Your task to perform on an android device: Open accessibility settings Image 0: 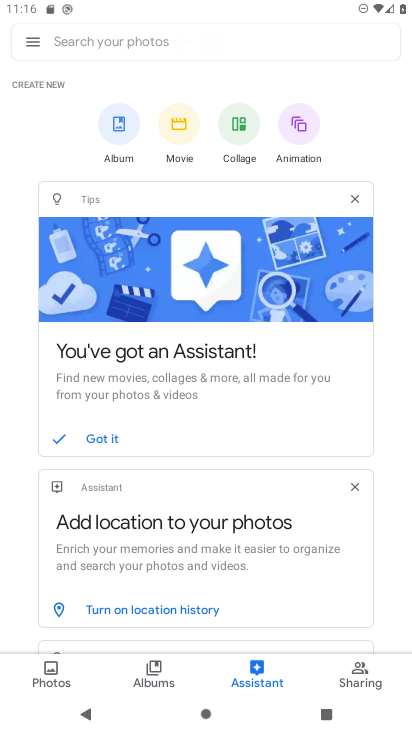
Step 0: press home button
Your task to perform on an android device: Open accessibility settings Image 1: 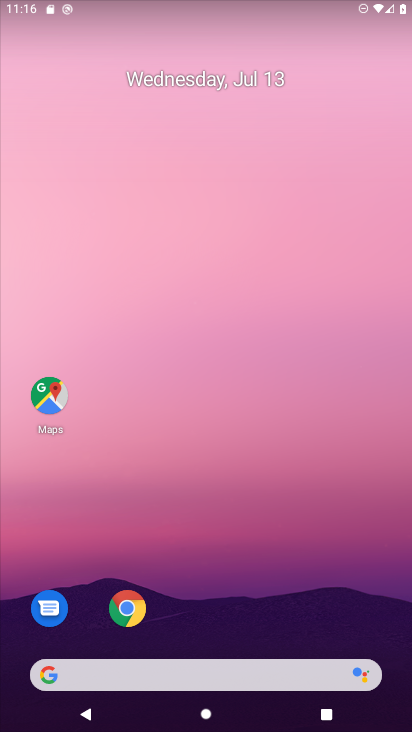
Step 1: drag from (285, 578) to (362, 30)
Your task to perform on an android device: Open accessibility settings Image 2: 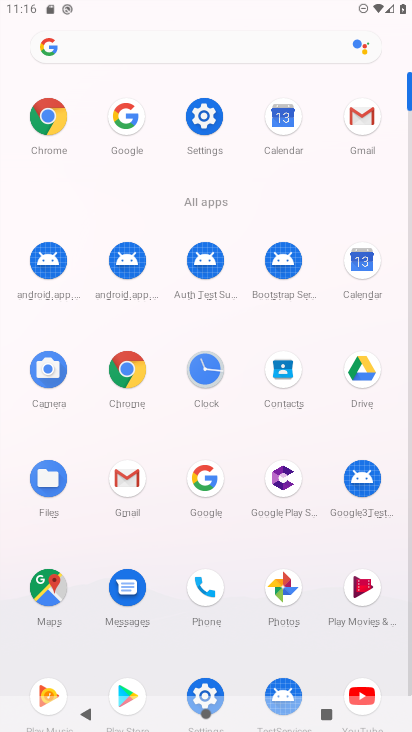
Step 2: click (207, 119)
Your task to perform on an android device: Open accessibility settings Image 3: 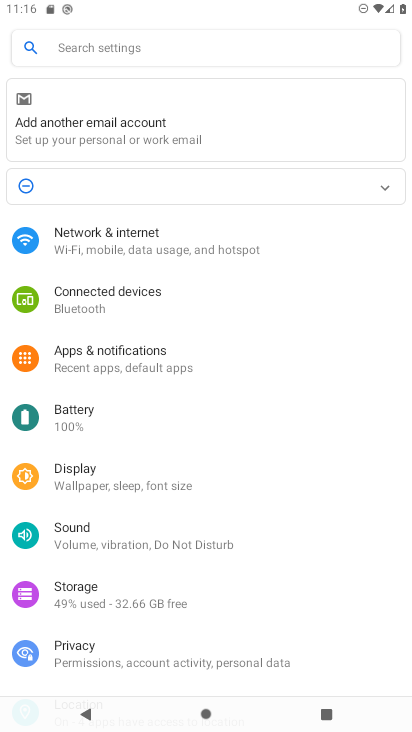
Step 3: drag from (137, 569) to (145, 208)
Your task to perform on an android device: Open accessibility settings Image 4: 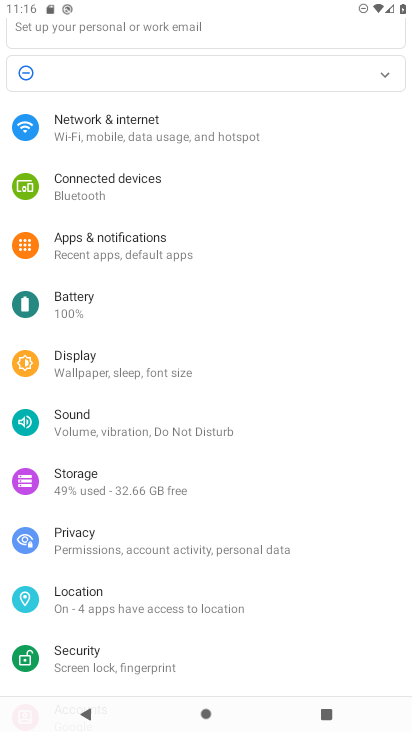
Step 4: drag from (132, 616) to (136, 90)
Your task to perform on an android device: Open accessibility settings Image 5: 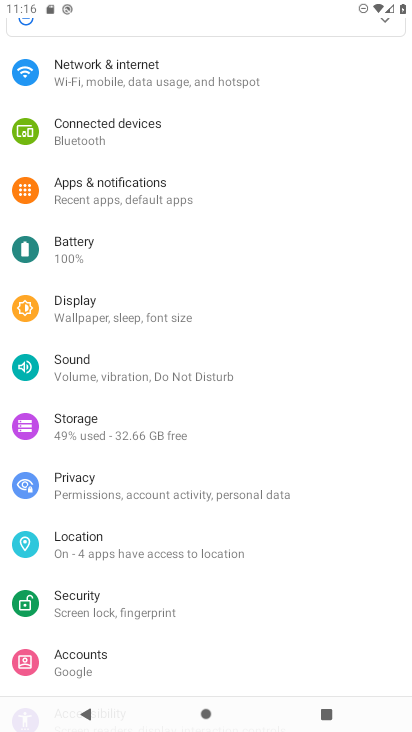
Step 5: drag from (150, 644) to (177, 131)
Your task to perform on an android device: Open accessibility settings Image 6: 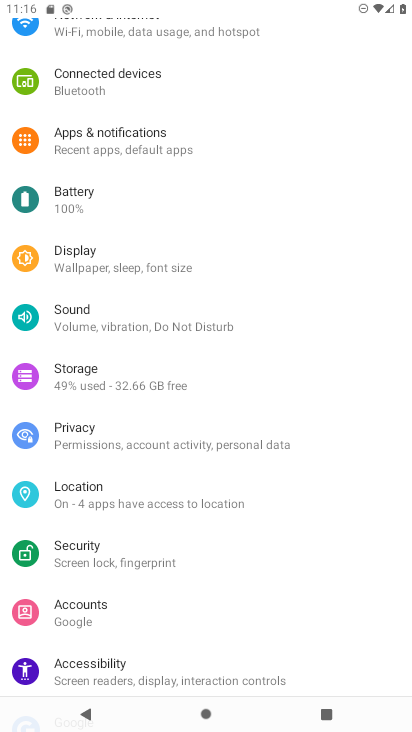
Step 6: click (140, 671)
Your task to perform on an android device: Open accessibility settings Image 7: 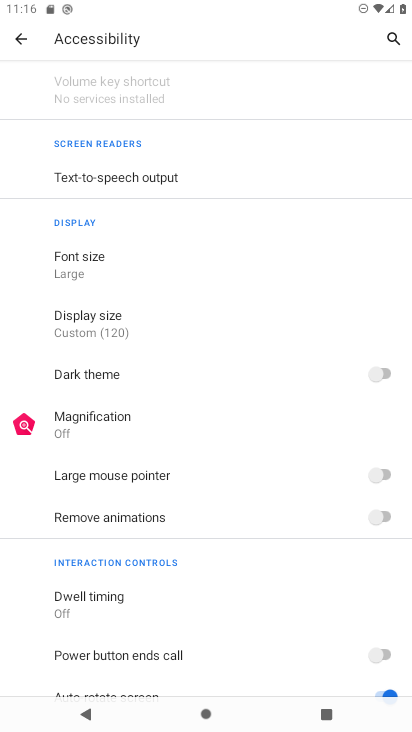
Step 7: task complete